Your task to perform on an android device: Go to notification settings Image 0: 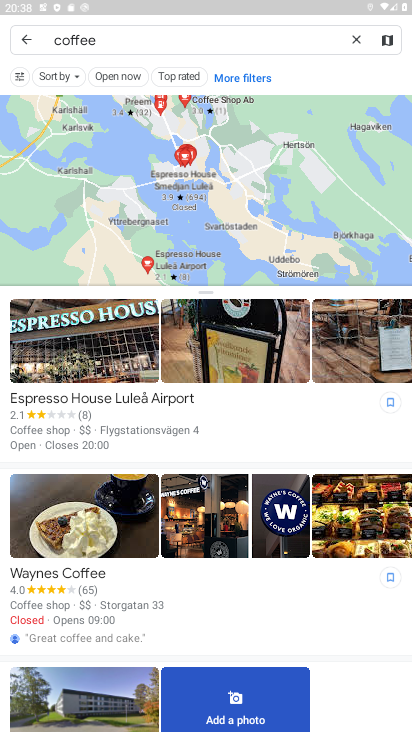
Step 0: press home button
Your task to perform on an android device: Go to notification settings Image 1: 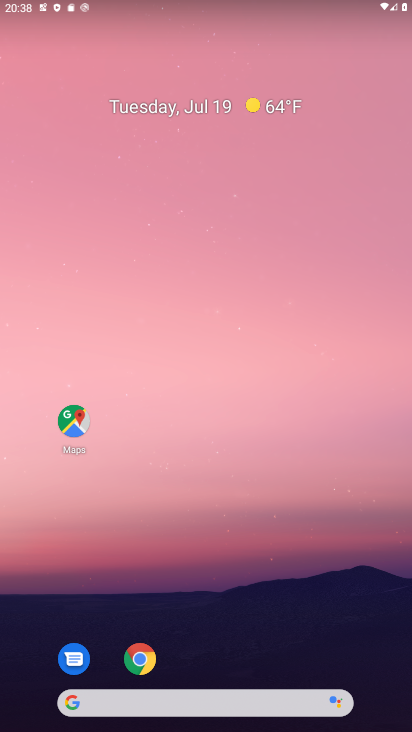
Step 1: drag from (243, 600) to (249, 248)
Your task to perform on an android device: Go to notification settings Image 2: 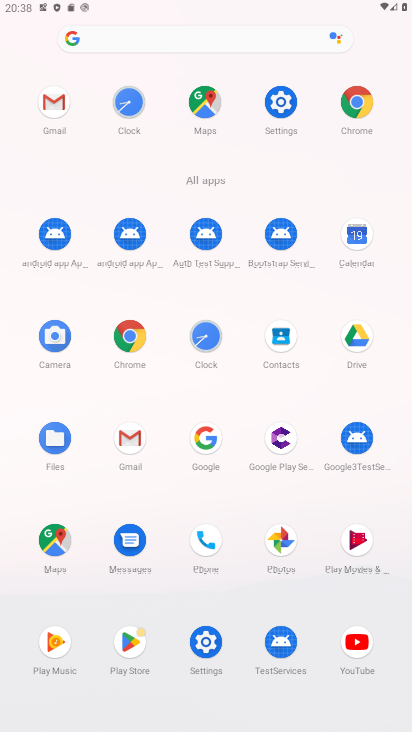
Step 2: click (283, 118)
Your task to perform on an android device: Go to notification settings Image 3: 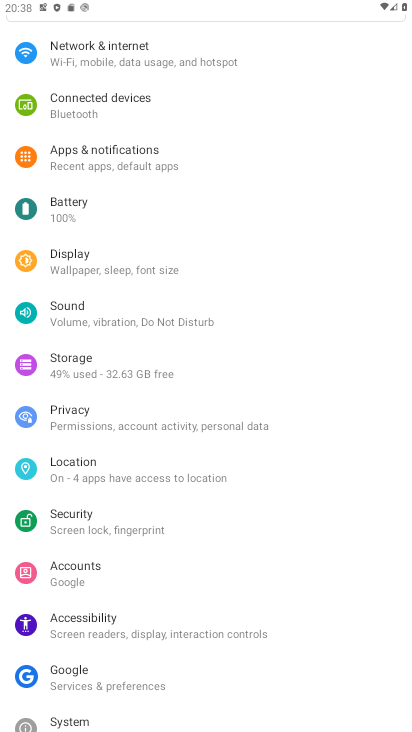
Step 3: click (123, 157)
Your task to perform on an android device: Go to notification settings Image 4: 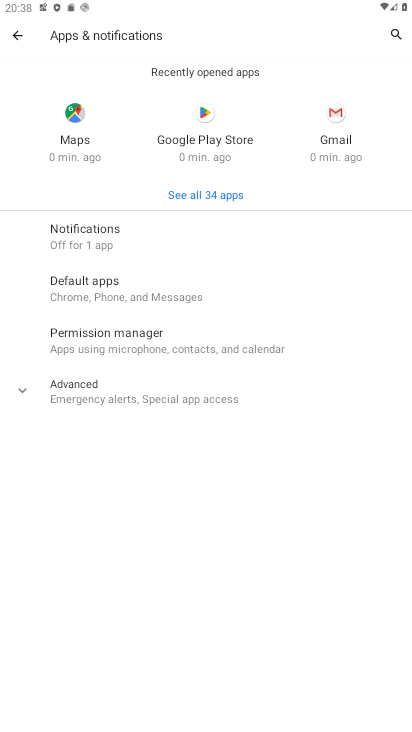
Step 4: task complete